Your task to perform on an android device: delete the emails in spam in the gmail app Image 0: 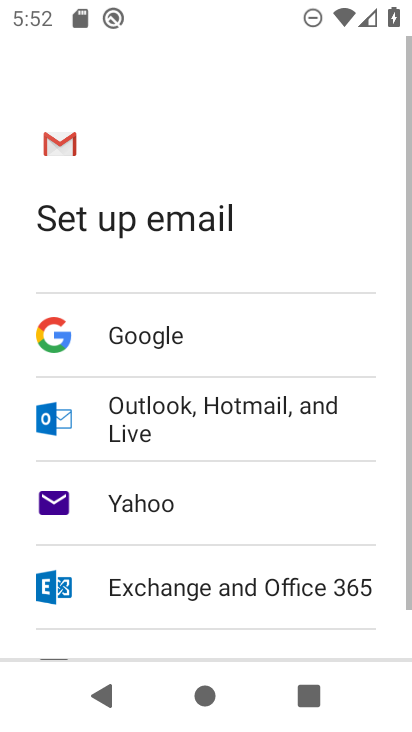
Step 0: press home button
Your task to perform on an android device: delete the emails in spam in the gmail app Image 1: 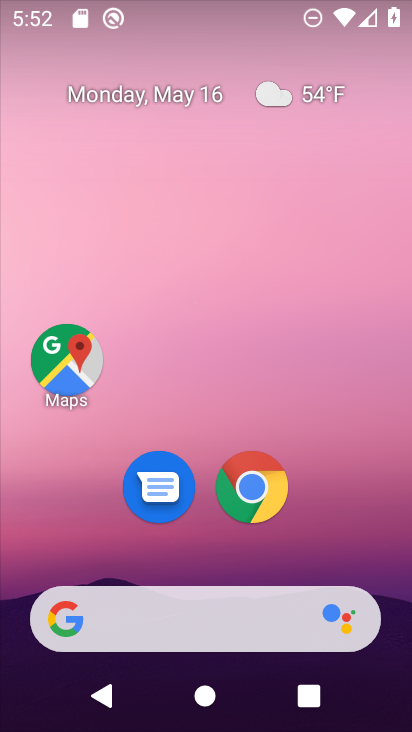
Step 1: drag from (198, 571) to (218, 379)
Your task to perform on an android device: delete the emails in spam in the gmail app Image 2: 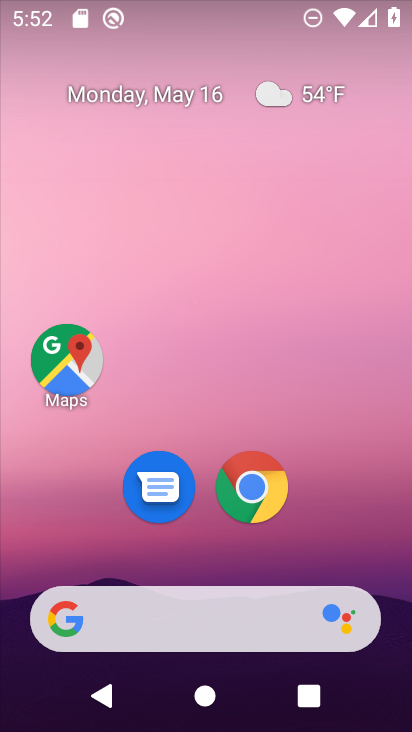
Step 2: drag from (221, 543) to (213, 200)
Your task to perform on an android device: delete the emails in spam in the gmail app Image 3: 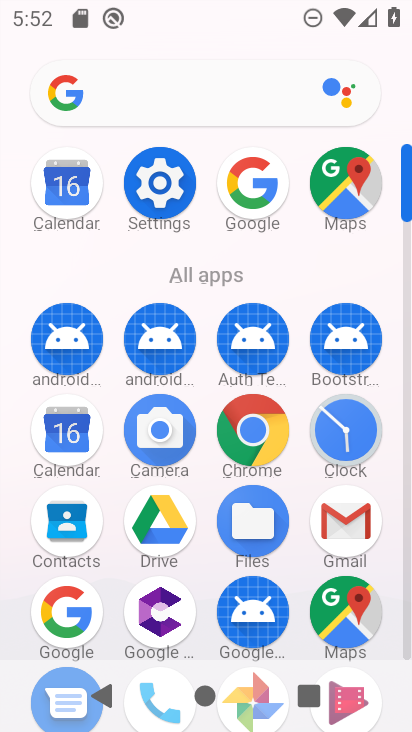
Step 3: click (339, 525)
Your task to perform on an android device: delete the emails in spam in the gmail app Image 4: 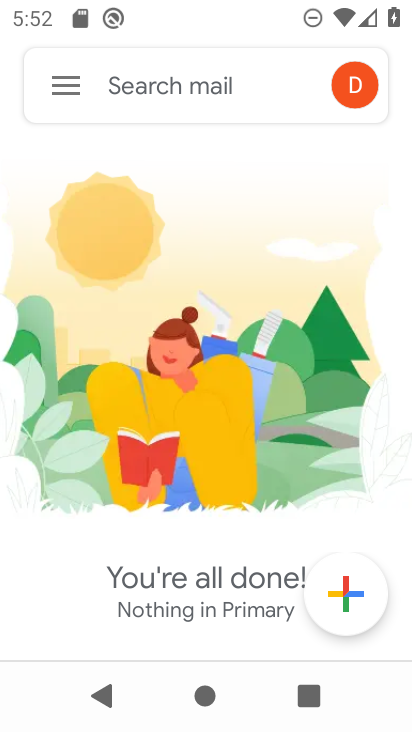
Step 4: click (73, 85)
Your task to perform on an android device: delete the emails in spam in the gmail app Image 5: 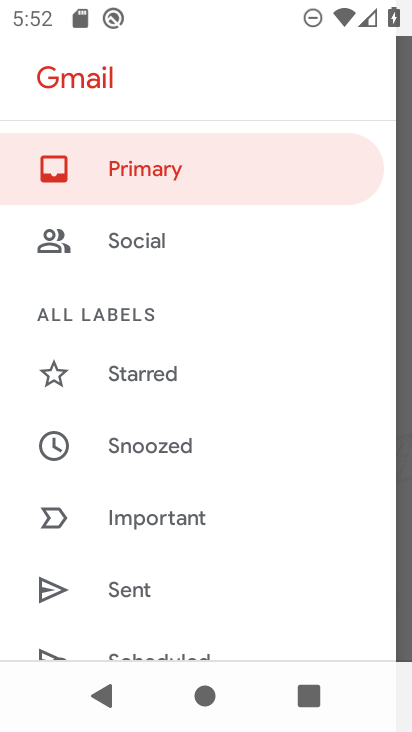
Step 5: drag from (181, 580) to (192, 261)
Your task to perform on an android device: delete the emails in spam in the gmail app Image 6: 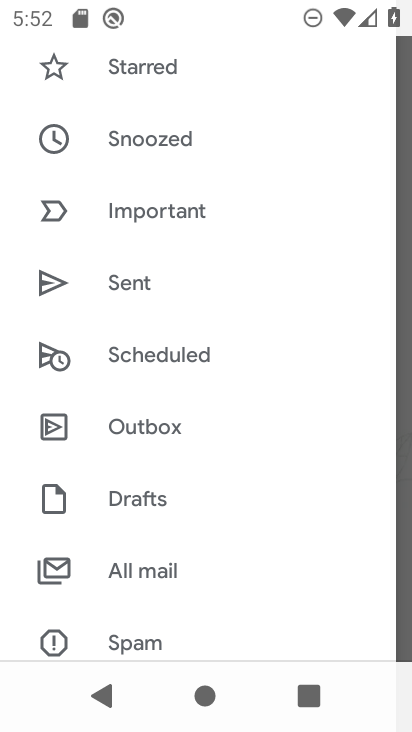
Step 6: drag from (133, 627) to (143, 369)
Your task to perform on an android device: delete the emails in spam in the gmail app Image 7: 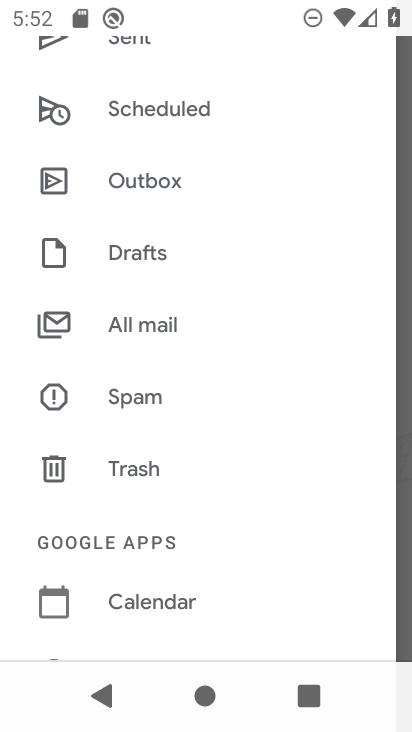
Step 7: click (154, 396)
Your task to perform on an android device: delete the emails in spam in the gmail app Image 8: 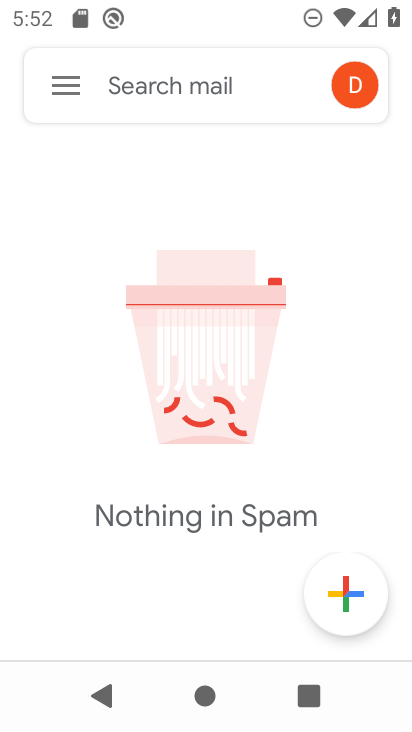
Step 8: task complete